Your task to perform on an android device: check android version Image 0: 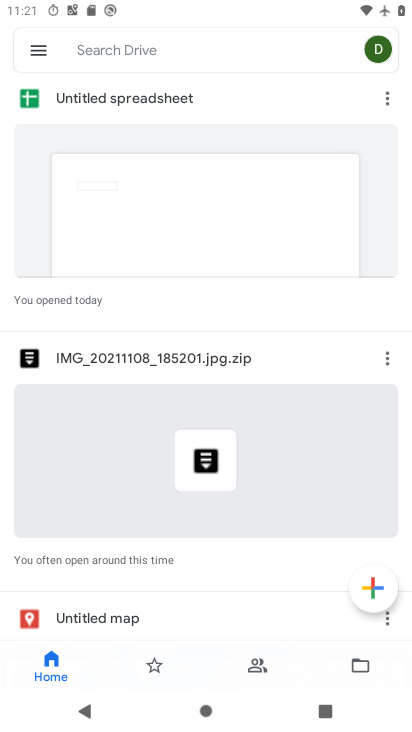
Step 0: press home button
Your task to perform on an android device: check android version Image 1: 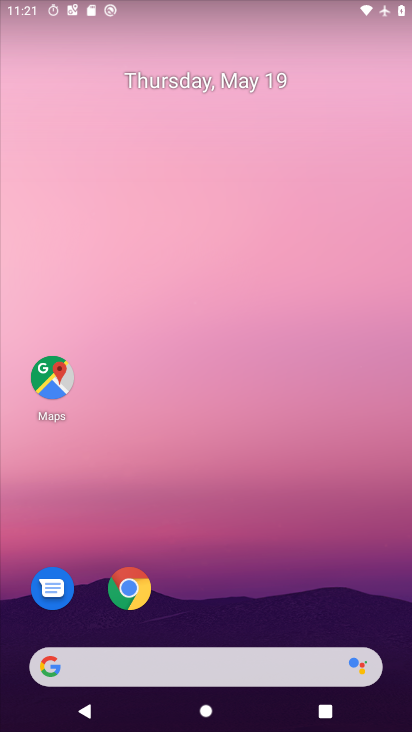
Step 1: drag from (191, 646) to (323, 77)
Your task to perform on an android device: check android version Image 2: 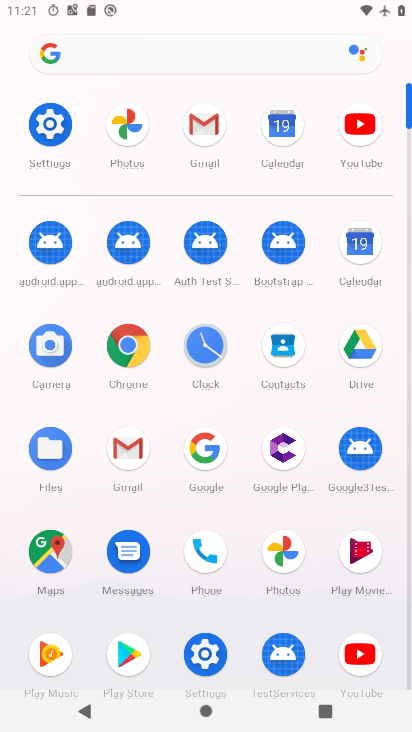
Step 2: click (55, 126)
Your task to perform on an android device: check android version Image 3: 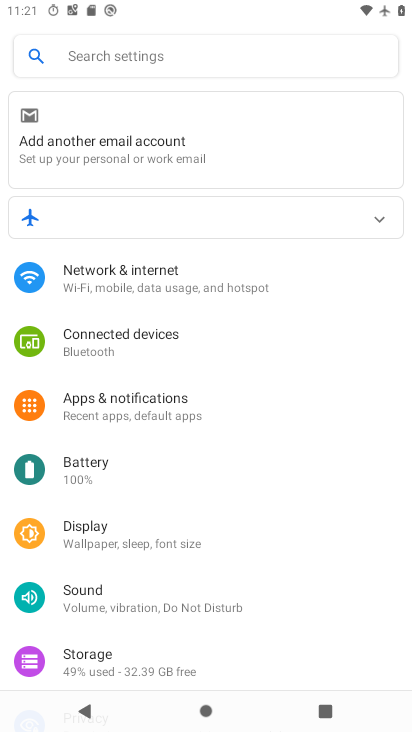
Step 3: drag from (298, 573) to (410, 11)
Your task to perform on an android device: check android version Image 4: 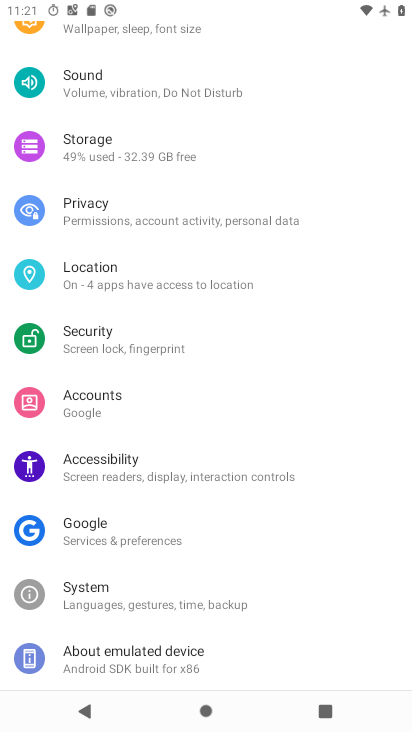
Step 4: drag from (281, 614) to (347, 153)
Your task to perform on an android device: check android version Image 5: 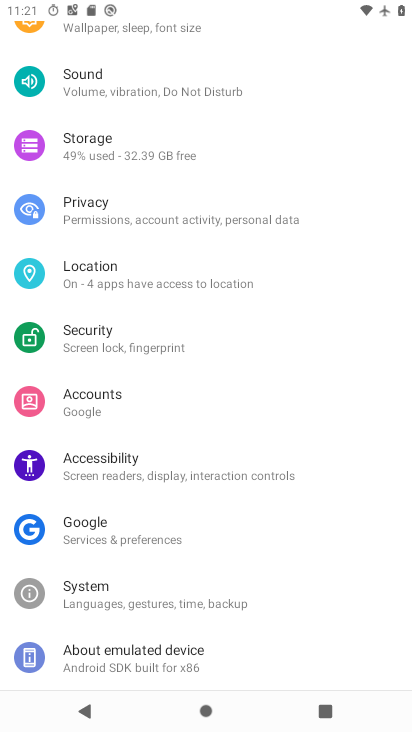
Step 5: click (162, 661)
Your task to perform on an android device: check android version Image 6: 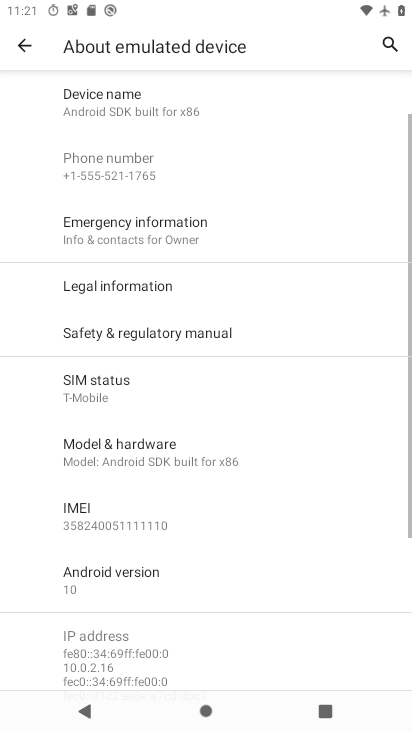
Step 6: click (125, 567)
Your task to perform on an android device: check android version Image 7: 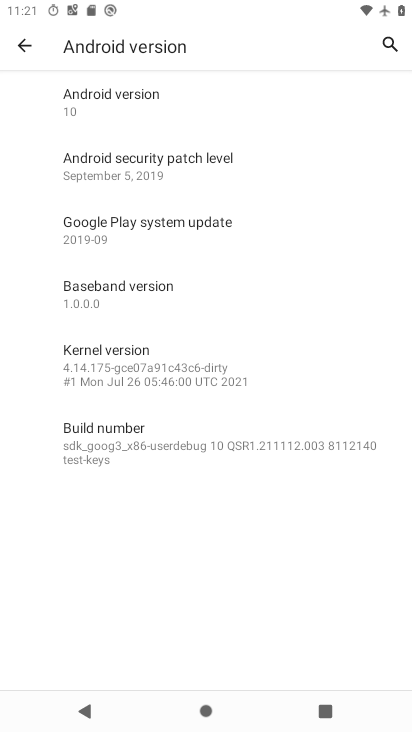
Step 7: task complete